Your task to perform on an android device: Open Chrome and go to settings Image 0: 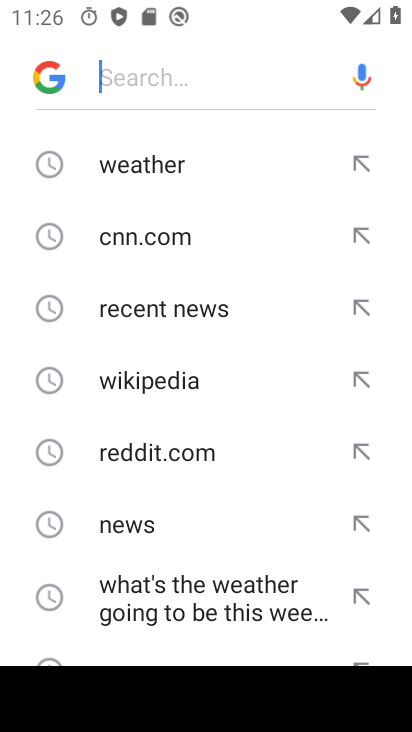
Step 0: press home button
Your task to perform on an android device: Open Chrome and go to settings Image 1: 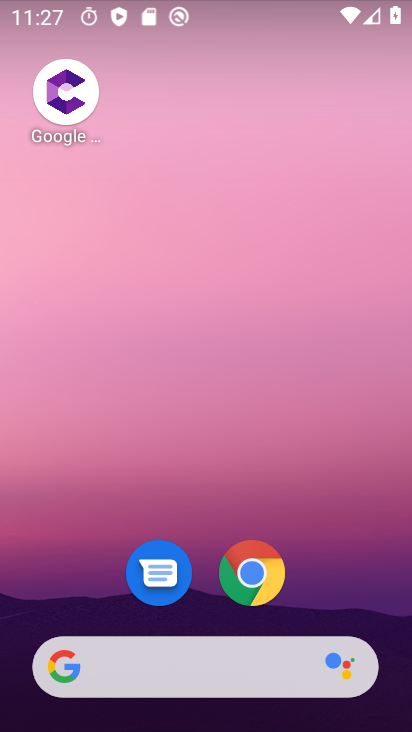
Step 1: drag from (356, 599) to (365, 188)
Your task to perform on an android device: Open Chrome and go to settings Image 2: 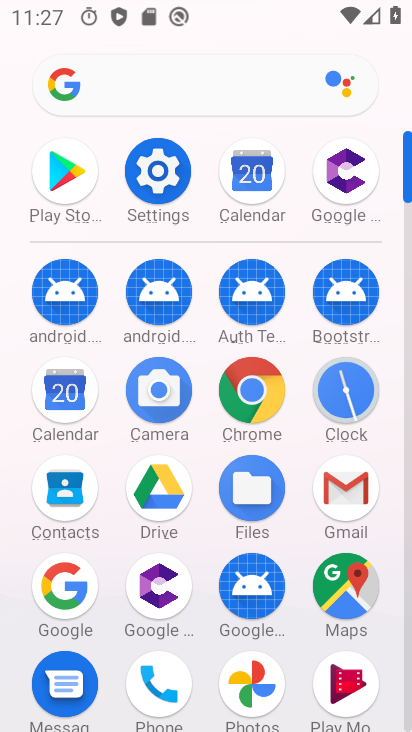
Step 2: click (261, 370)
Your task to perform on an android device: Open Chrome and go to settings Image 3: 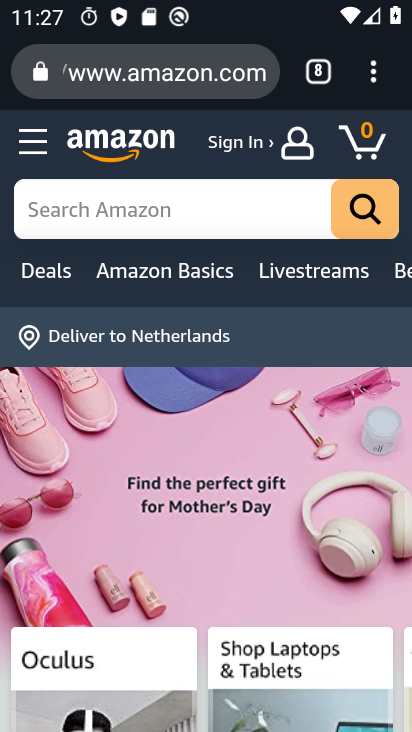
Step 3: click (375, 67)
Your task to perform on an android device: Open Chrome and go to settings Image 4: 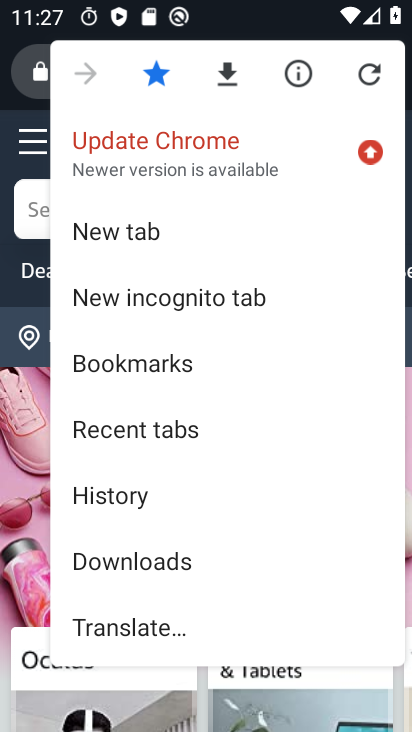
Step 4: drag from (270, 483) to (279, 319)
Your task to perform on an android device: Open Chrome and go to settings Image 5: 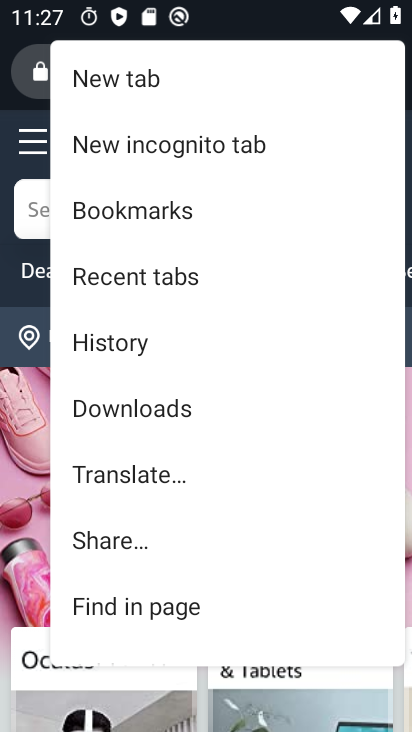
Step 5: drag from (282, 410) to (295, 288)
Your task to perform on an android device: Open Chrome and go to settings Image 6: 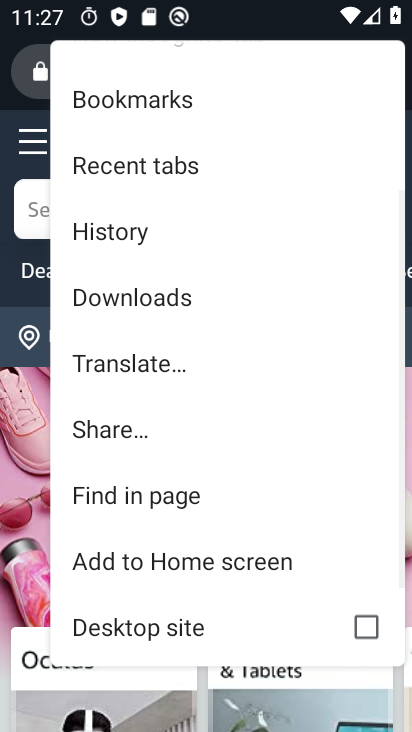
Step 6: drag from (334, 568) to (320, 321)
Your task to perform on an android device: Open Chrome and go to settings Image 7: 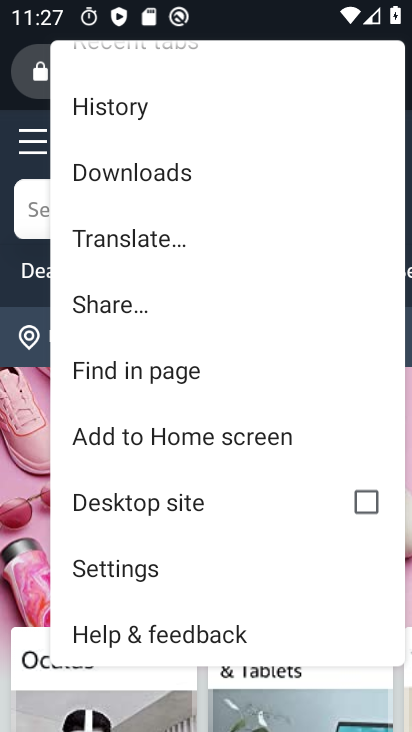
Step 7: click (111, 569)
Your task to perform on an android device: Open Chrome and go to settings Image 8: 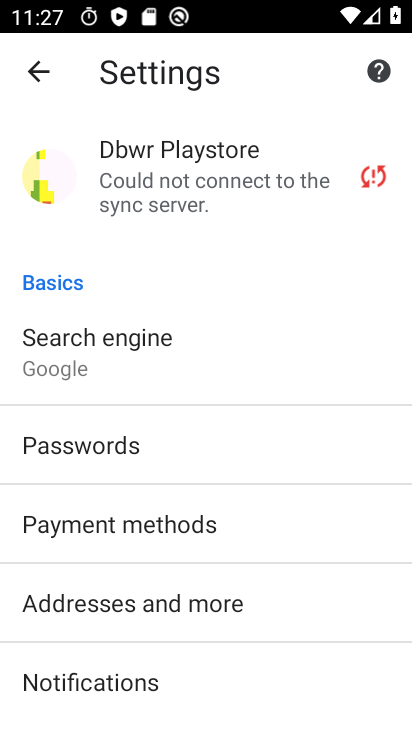
Step 8: task complete